Your task to perform on an android device: turn off airplane mode Image 0: 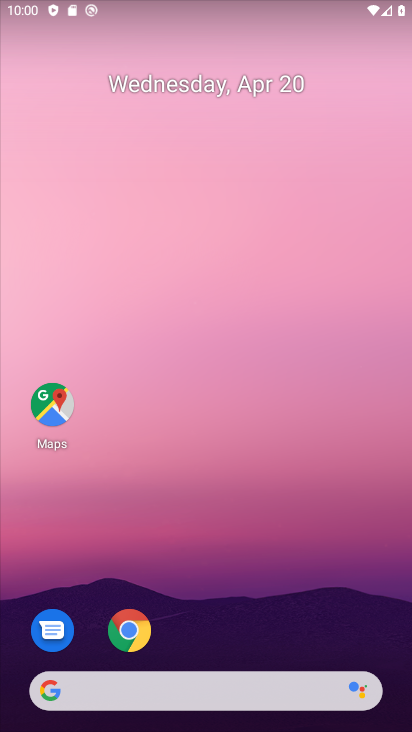
Step 0: drag from (294, 544) to (357, 40)
Your task to perform on an android device: turn off airplane mode Image 1: 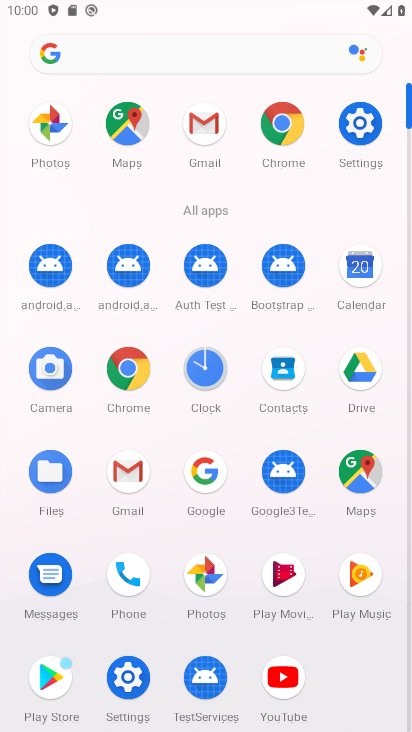
Step 1: click (354, 112)
Your task to perform on an android device: turn off airplane mode Image 2: 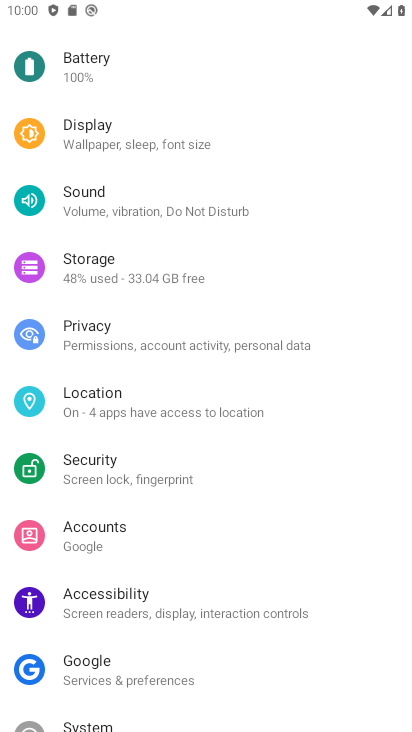
Step 2: drag from (167, 251) to (158, 571)
Your task to perform on an android device: turn off airplane mode Image 3: 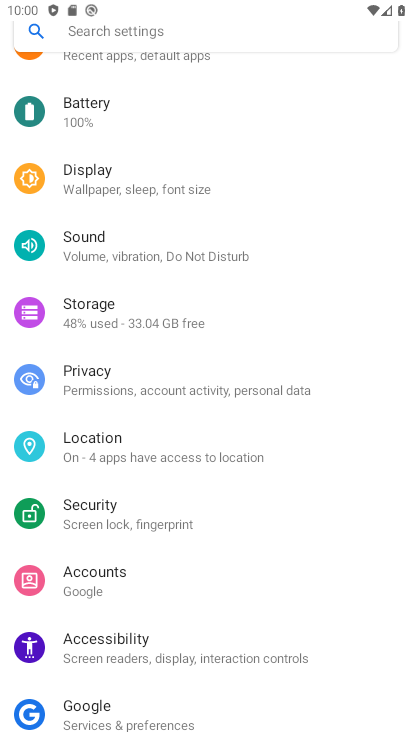
Step 3: drag from (183, 372) to (194, 595)
Your task to perform on an android device: turn off airplane mode Image 4: 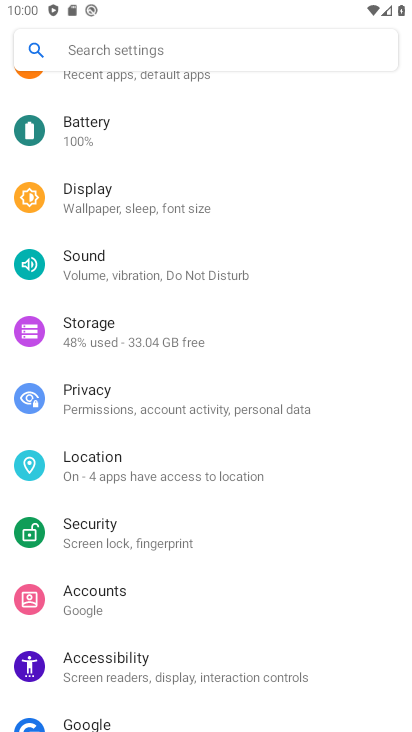
Step 4: drag from (218, 318) to (211, 666)
Your task to perform on an android device: turn off airplane mode Image 5: 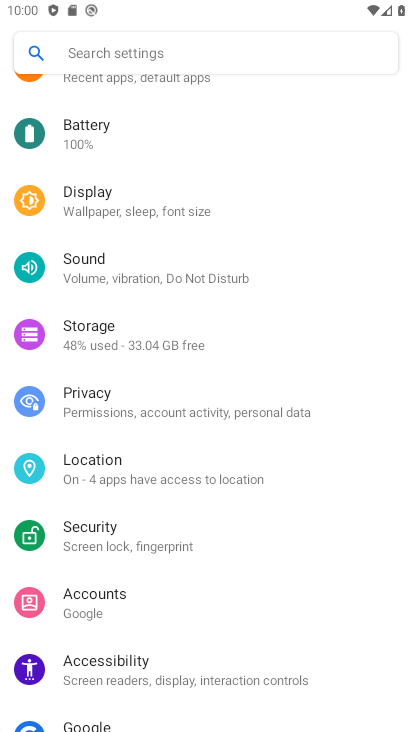
Step 5: drag from (241, 201) to (204, 666)
Your task to perform on an android device: turn off airplane mode Image 6: 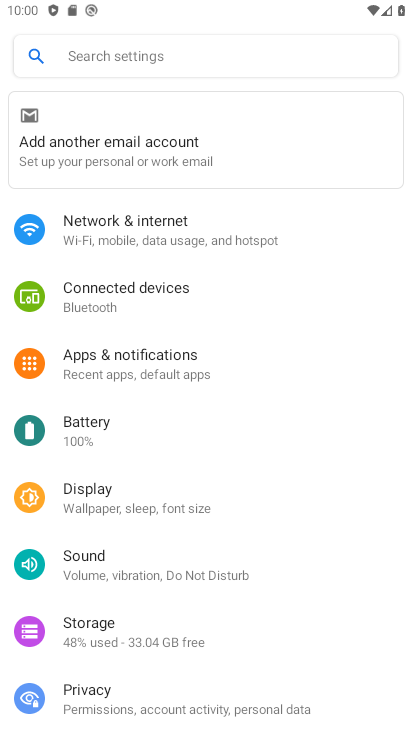
Step 6: drag from (232, 224) to (256, 631)
Your task to perform on an android device: turn off airplane mode Image 7: 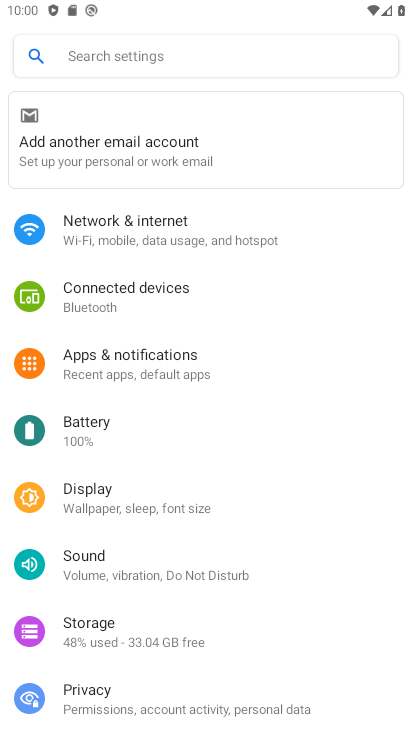
Step 7: click (132, 242)
Your task to perform on an android device: turn off airplane mode Image 8: 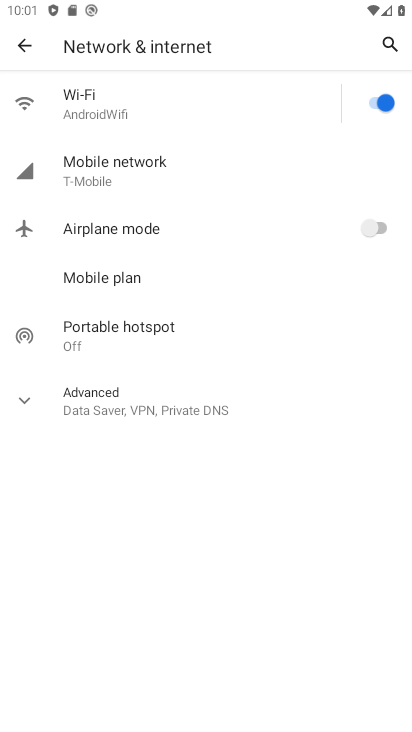
Step 8: task complete